Your task to perform on an android device: turn on bluetooth scan Image 0: 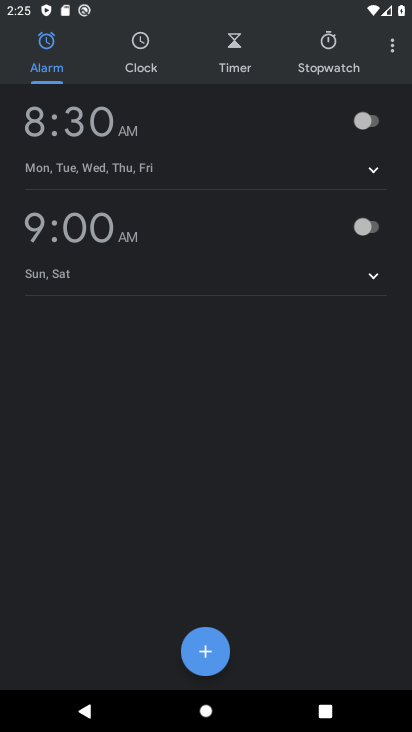
Step 0: press home button
Your task to perform on an android device: turn on bluetooth scan Image 1: 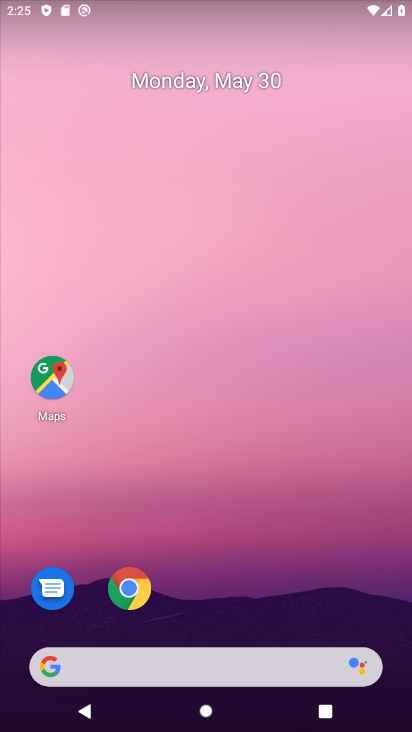
Step 1: drag from (263, 613) to (242, 286)
Your task to perform on an android device: turn on bluetooth scan Image 2: 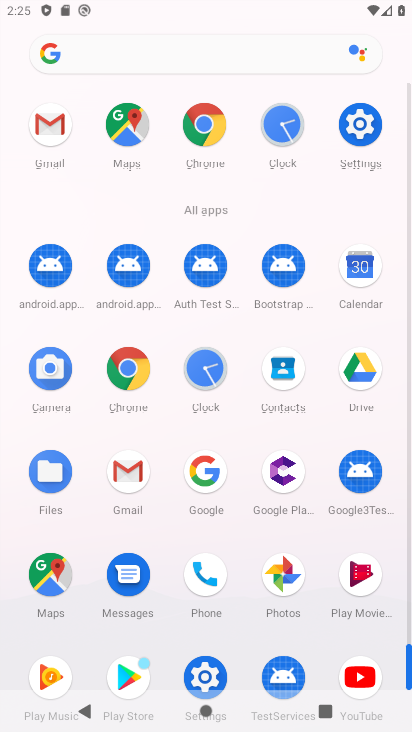
Step 2: click (357, 112)
Your task to perform on an android device: turn on bluetooth scan Image 3: 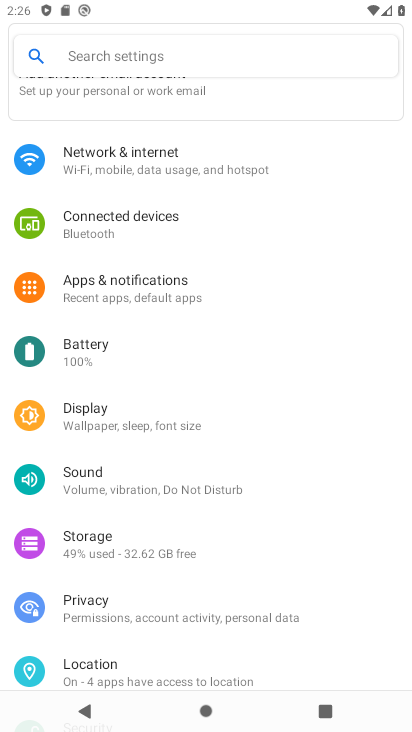
Step 3: click (179, 44)
Your task to perform on an android device: turn on bluetooth scan Image 4: 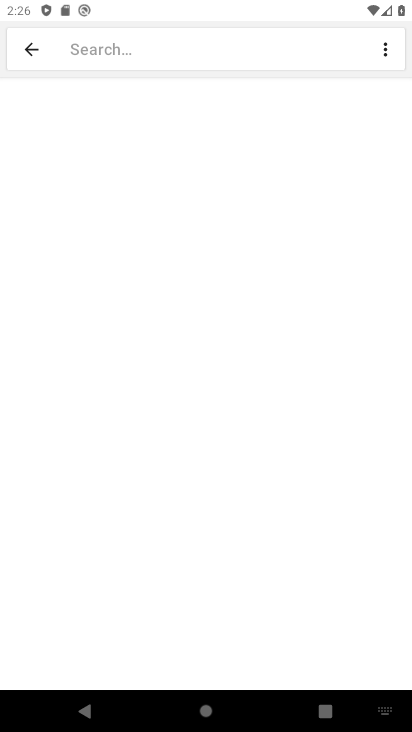
Step 4: type "bluetoorh"
Your task to perform on an android device: turn on bluetooth scan Image 5: 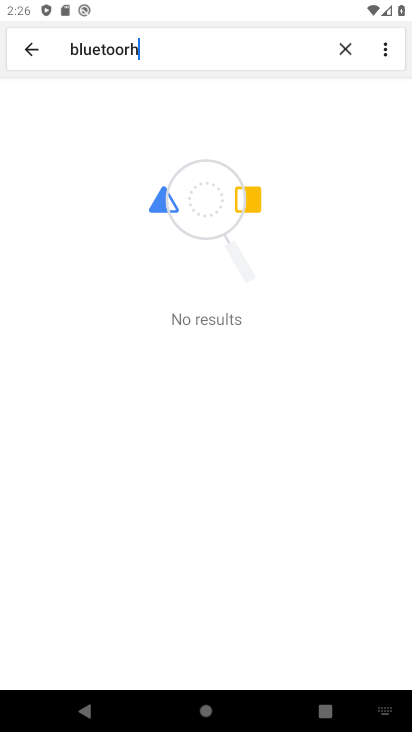
Step 5: click (159, 50)
Your task to perform on an android device: turn on bluetooth scan Image 6: 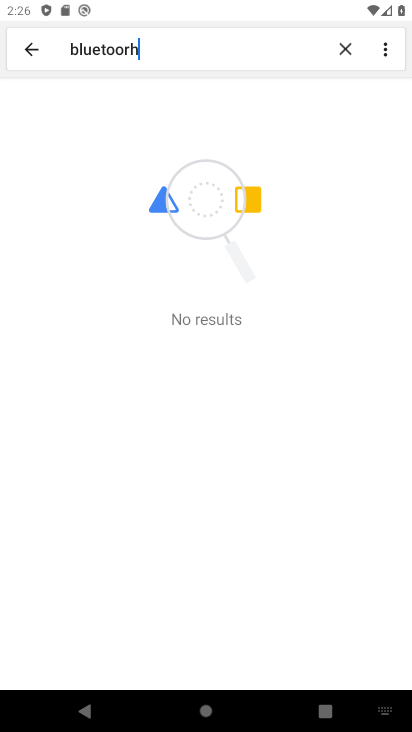
Step 6: click (151, 35)
Your task to perform on an android device: turn on bluetooth scan Image 7: 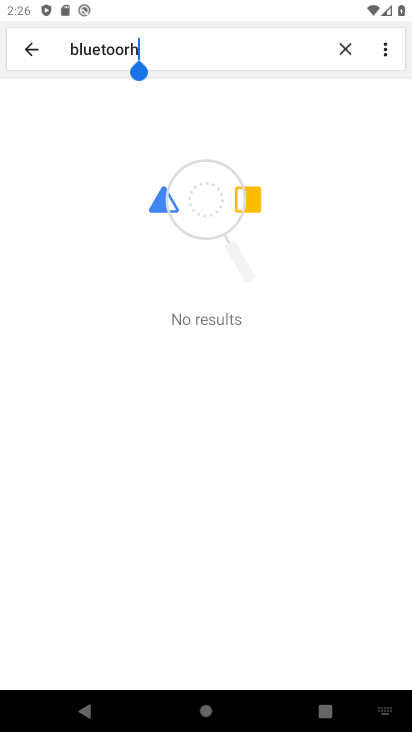
Step 7: click (343, 45)
Your task to perform on an android device: turn on bluetooth scan Image 8: 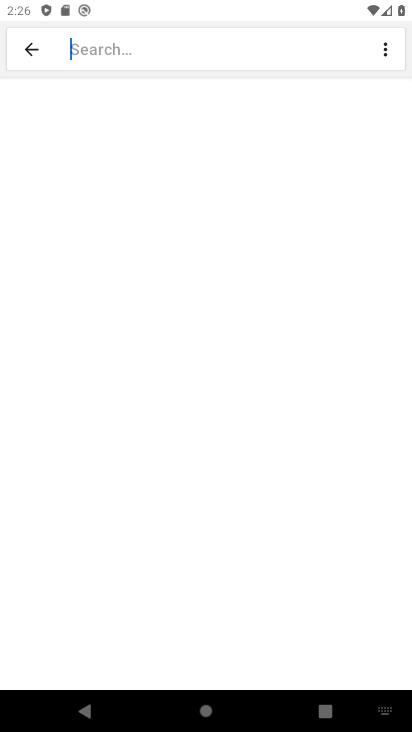
Step 8: click (262, 49)
Your task to perform on an android device: turn on bluetooth scan Image 9: 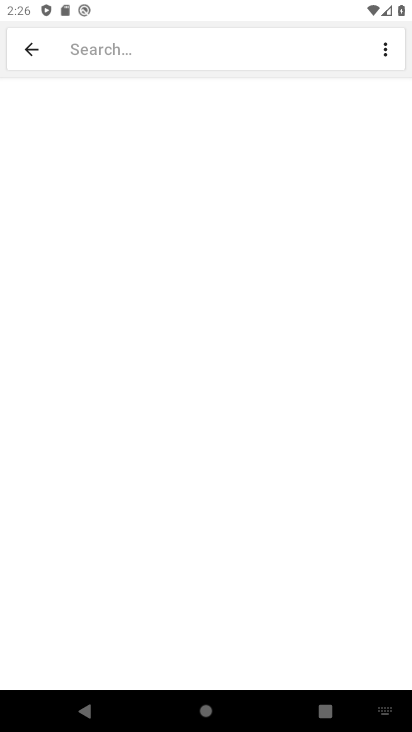
Step 9: type "bluetooth scan"
Your task to perform on an android device: turn on bluetooth scan Image 10: 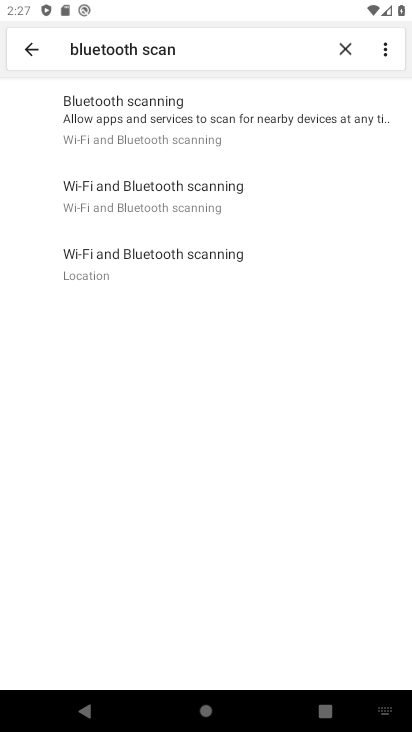
Step 10: click (161, 104)
Your task to perform on an android device: turn on bluetooth scan Image 11: 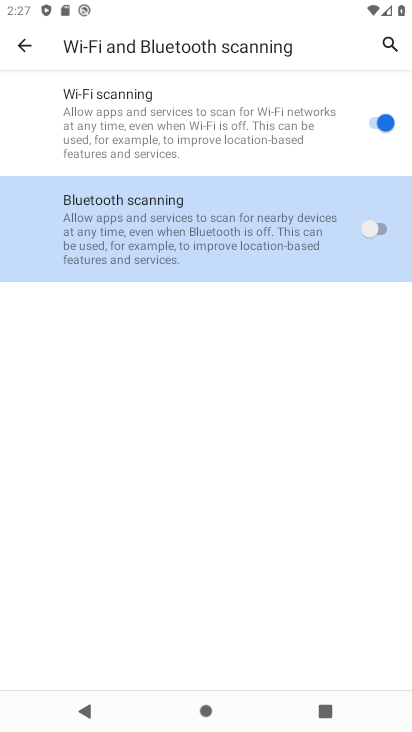
Step 11: task complete